Your task to perform on an android device: open app "Google Play services" (install if not already installed) Image 0: 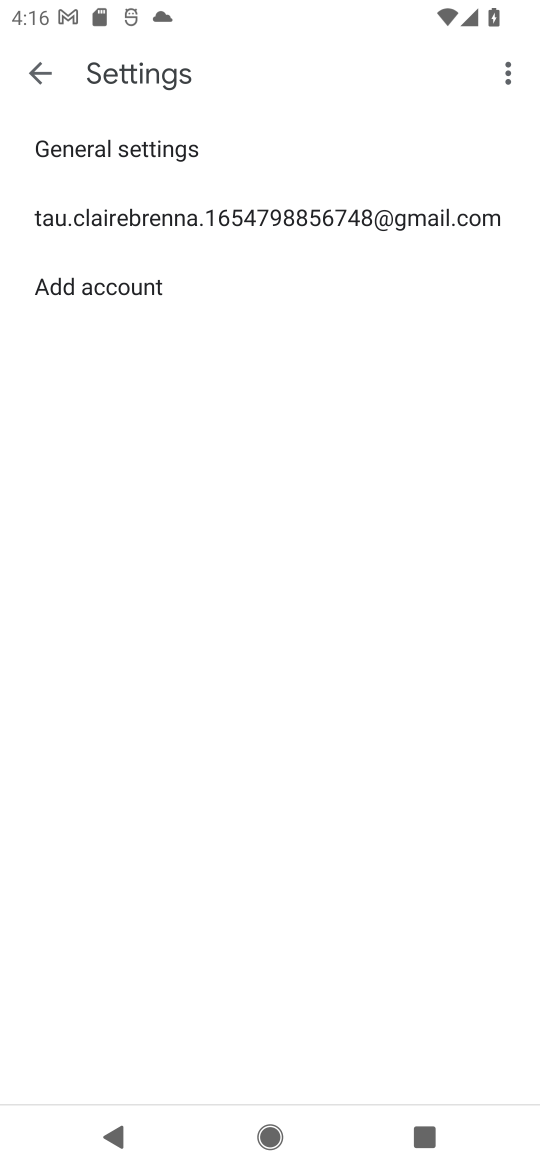
Step 0: press back button
Your task to perform on an android device: open app "Google Play services" (install if not already installed) Image 1: 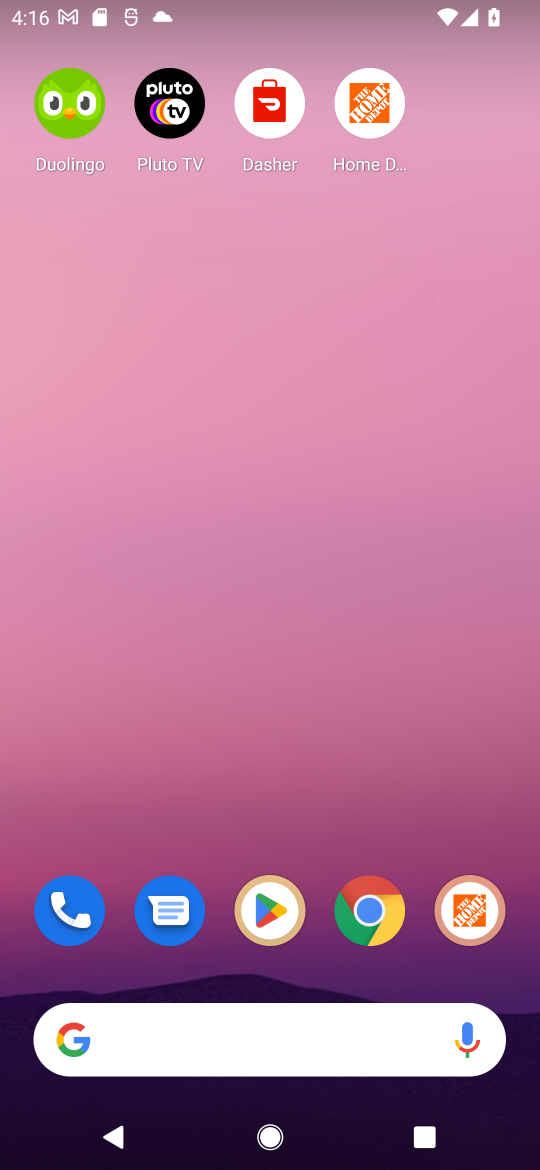
Step 1: click (256, 920)
Your task to perform on an android device: open app "Google Play services" (install if not already installed) Image 2: 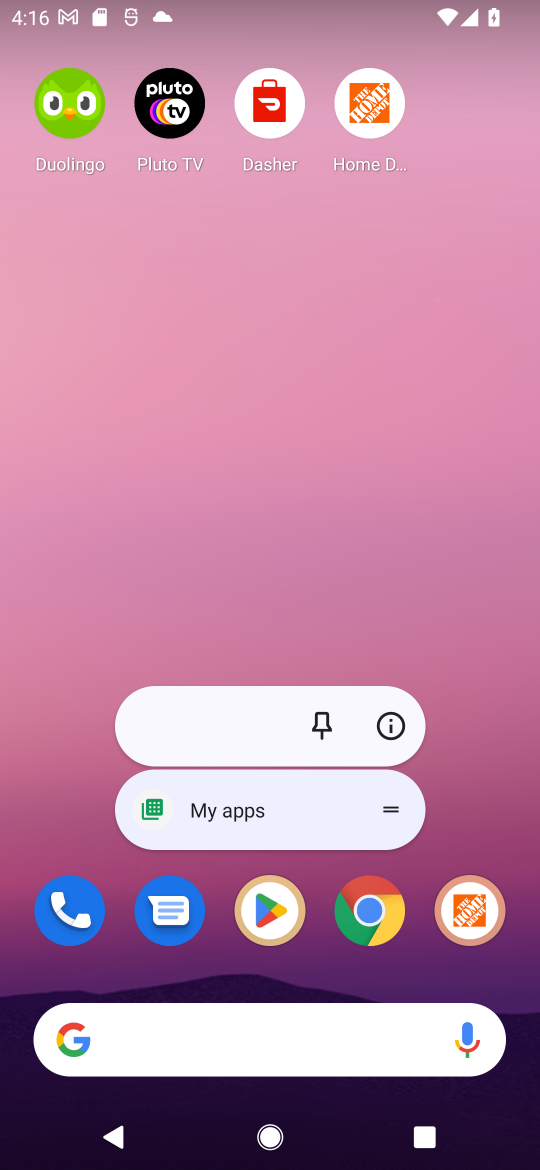
Step 2: click (256, 920)
Your task to perform on an android device: open app "Google Play services" (install if not already installed) Image 3: 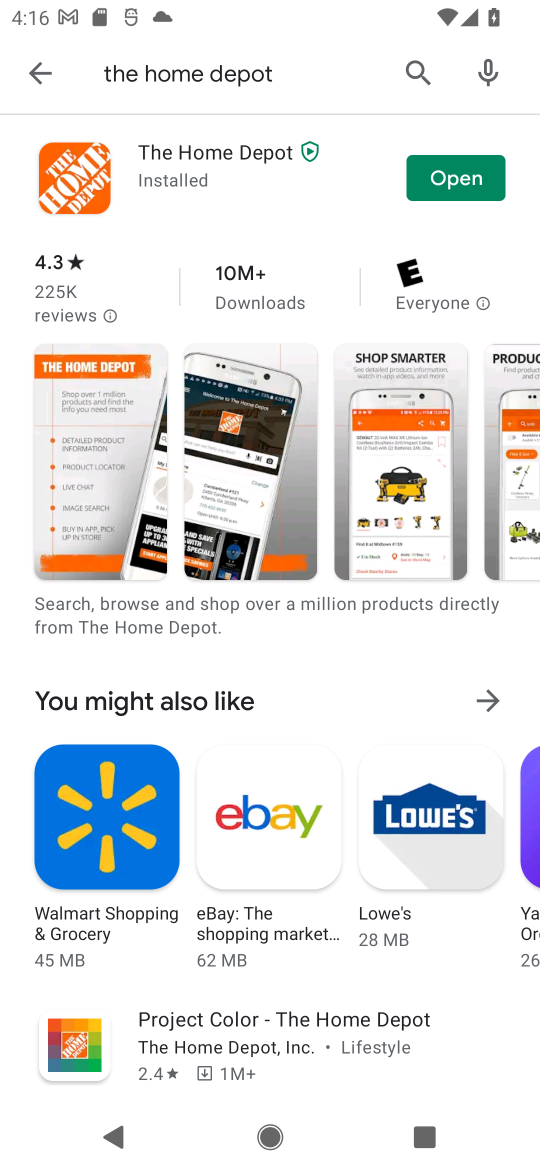
Step 3: click (412, 69)
Your task to perform on an android device: open app "Google Play services" (install if not already installed) Image 4: 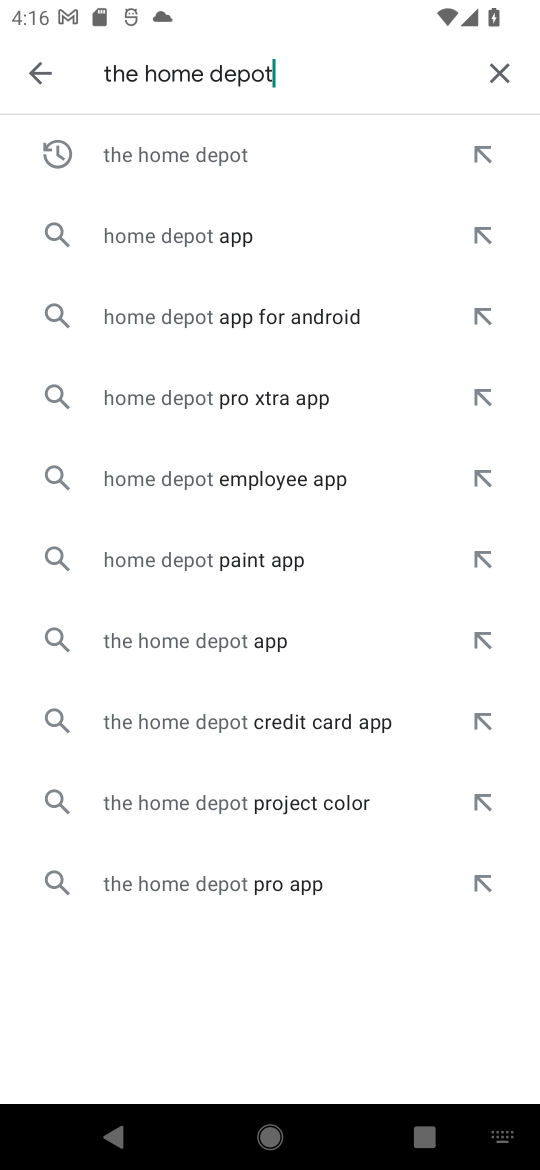
Step 4: click (491, 56)
Your task to perform on an android device: open app "Google Play services" (install if not already installed) Image 5: 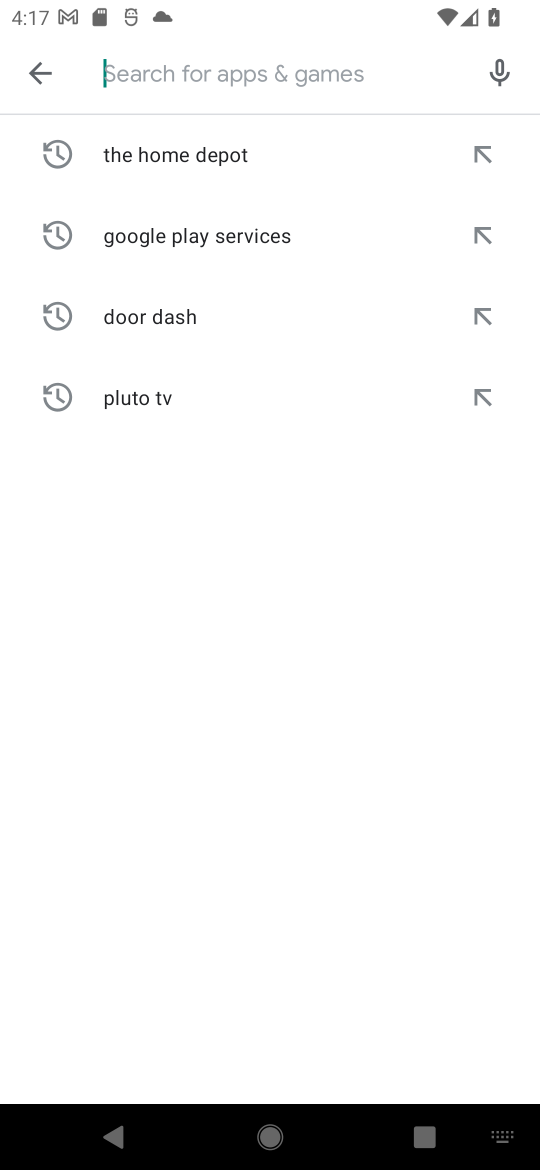
Step 5: click (229, 225)
Your task to perform on an android device: open app "Google Play services" (install if not already installed) Image 6: 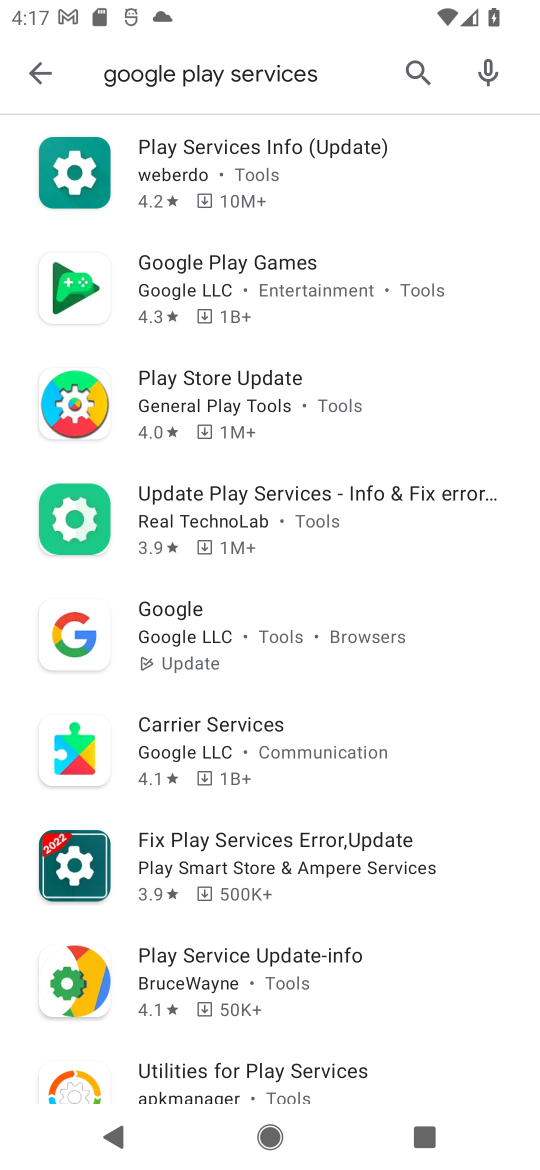
Step 6: click (293, 164)
Your task to perform on an android device: open app "Google Play services" (install if not already installed) Image 7: 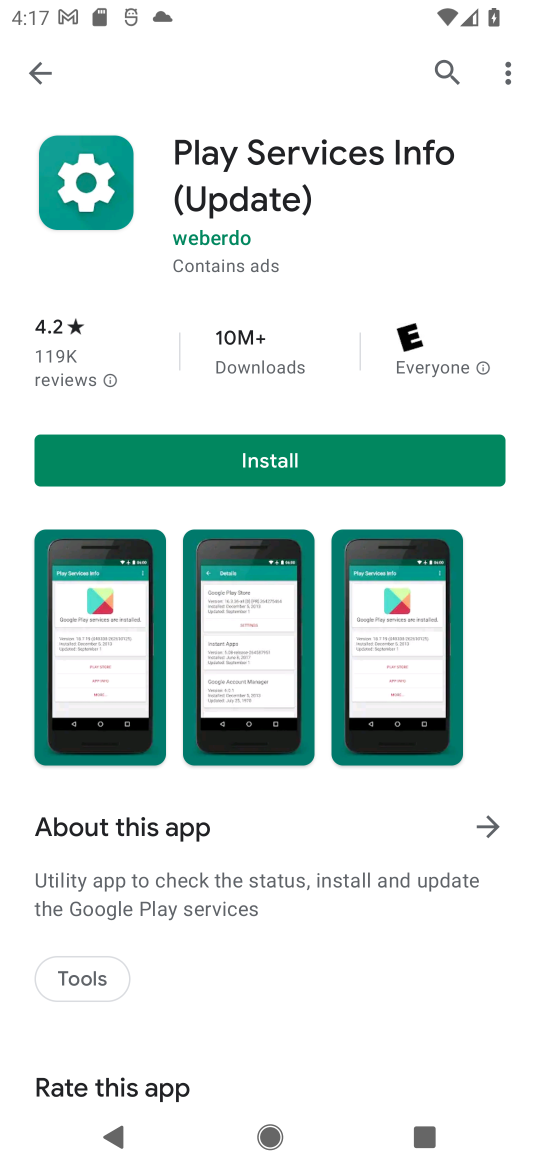
Step 7: task complete